Your task to perform on an android device: turn on showing notifications on the lock screen Image 0: 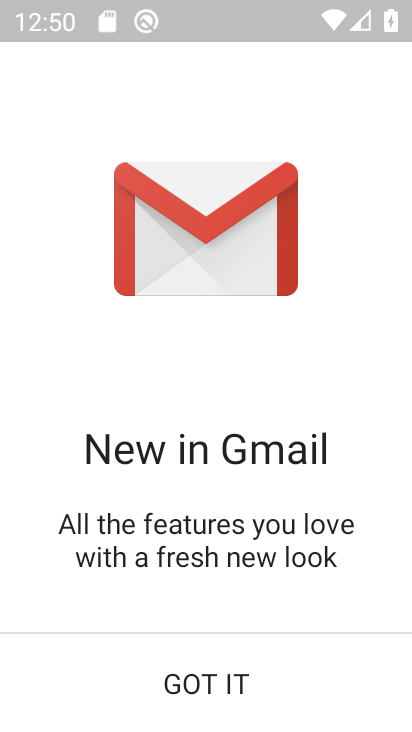
Step 0: press home button
Your task to perform on an android device: turn on showing notifications on the lock screen Image 1: 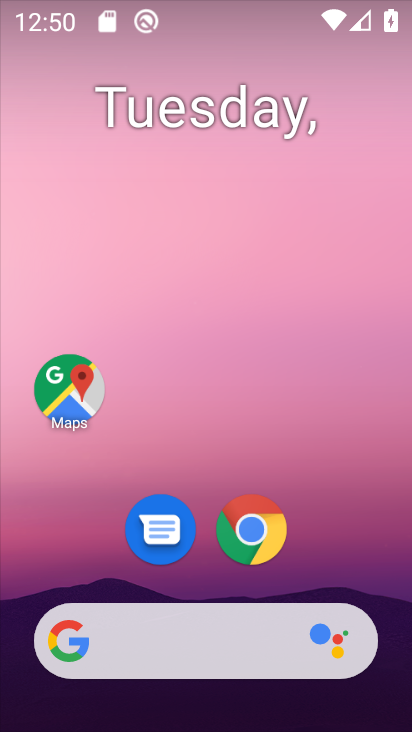
Step 1: drag from (161, 619) to (283, 213)
Your task to perform on an android device: turn on showing notifications on the lock screen Image 2: 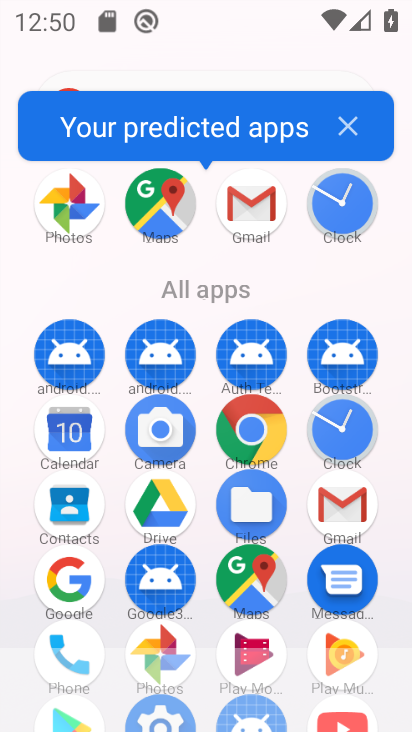
Step 2: drag from (159, 674) to (212, 361)
Your task to perform on an android device: turn on showing notifications on the lock screen Image 3: 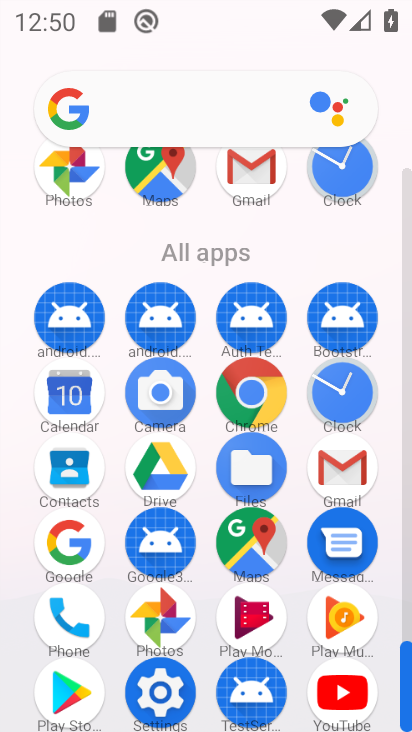
Step 3: click (174, 682)
Your task to perform on an android device: turn on showing notifications on the lock screen Image 4: 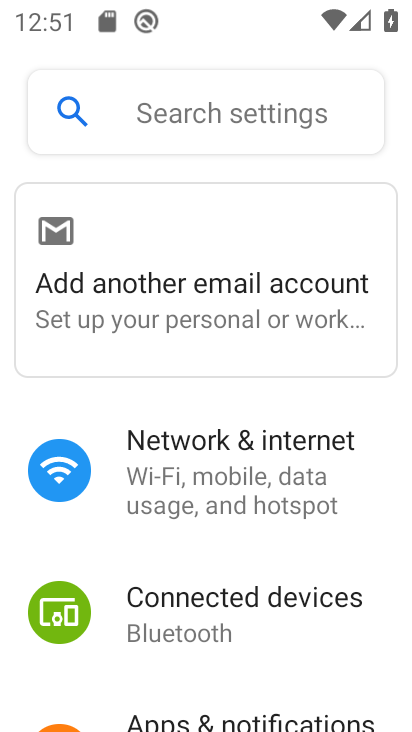
Step 4: drag from (191, 656) to (254, 352)
Your task to perform on an android device: turn on showing notifications on the lock screen Image 5: 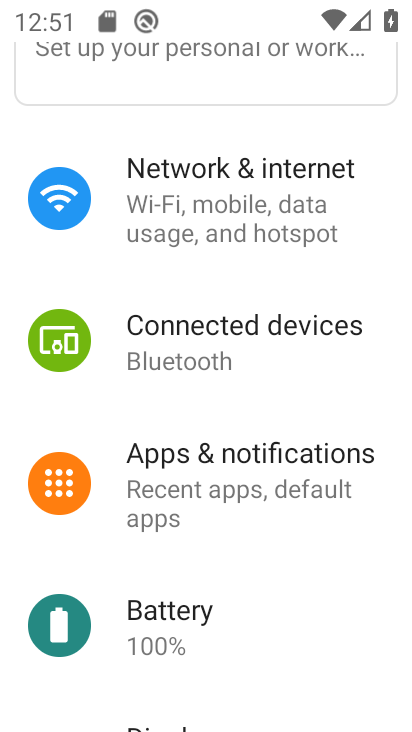
Step 5: click (222, 491)
Your task to perform on an android device: turn on showing notifications on the lock screen Image 6: 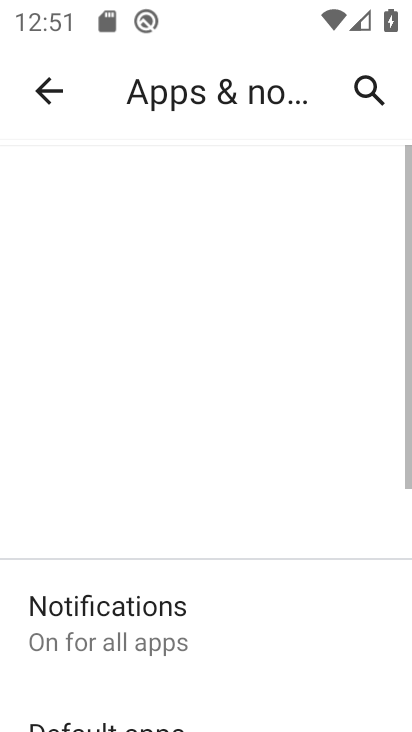
Step 6: click (183, 635)
Your task to perform on an android device: turn on showing notifications on the lock screen Image 7: 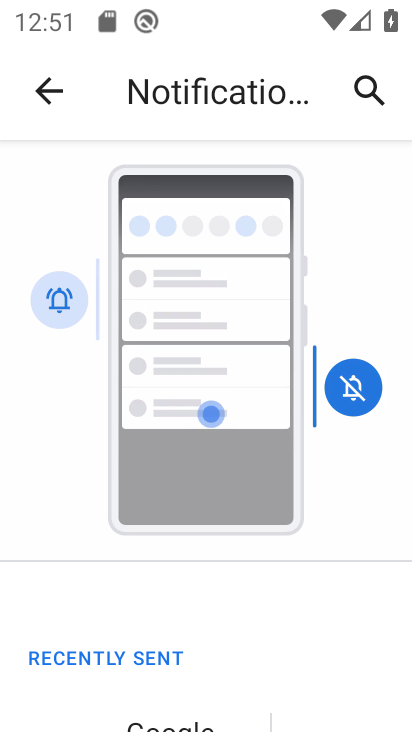
Step 7: drag from (184, 648) to (257, 286)
Your task to perform on an android device: turn on showing notifications on the lock screen Image 8: 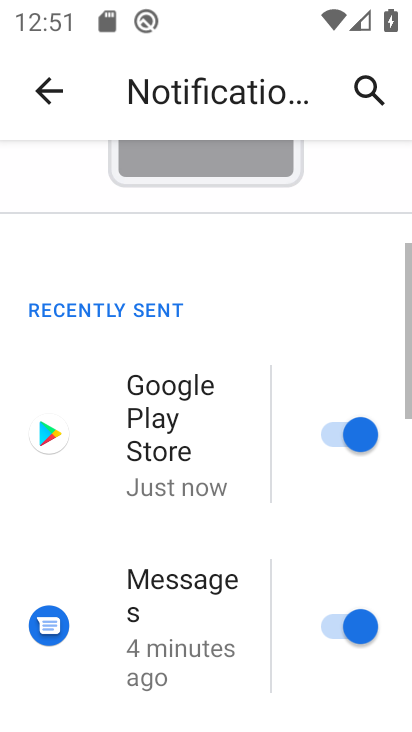
Step 8: drag from (185, 548) to (258, 261)
Your task to perform on an android device: turn on showing notifications on the lock screen Image 9: 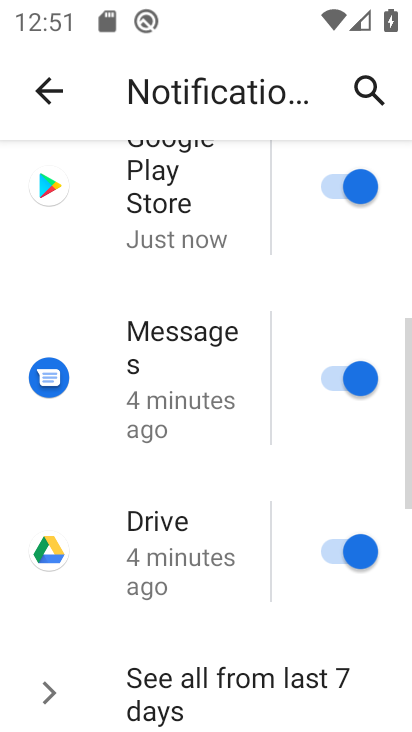
Step 9: drag from (182, 545) to (196, 203)
Your task to perform on an android device: turn on showing notifications on the lock screen Image 10: 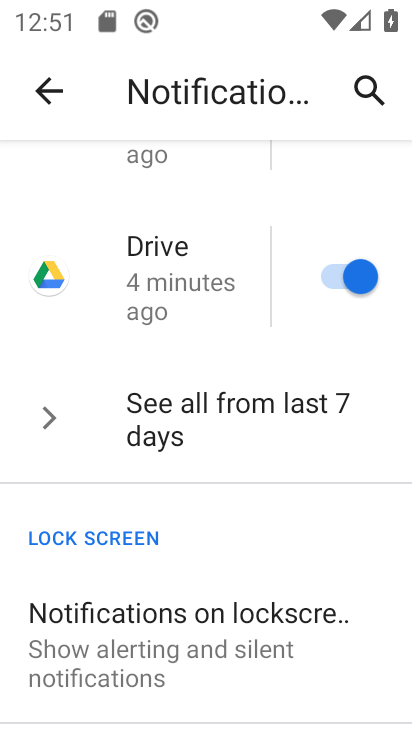
Step 10: click (203, 637)
Your task to perform on an android device: turn on showing notifications on the lock screen Image 11: 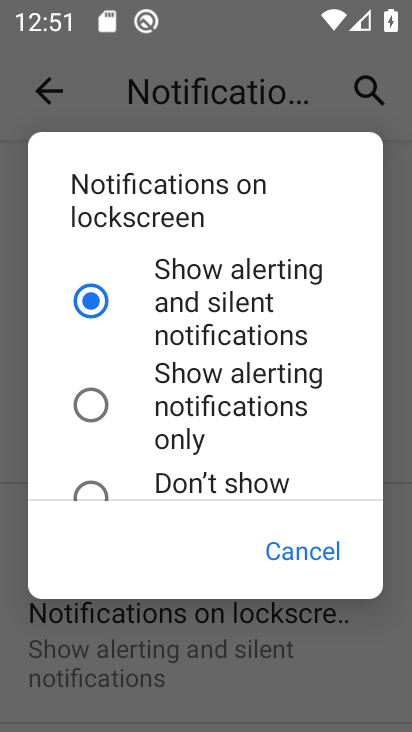
Step 11: task complete